Your task to perform on an android device: empty trash in google photos Image 0: 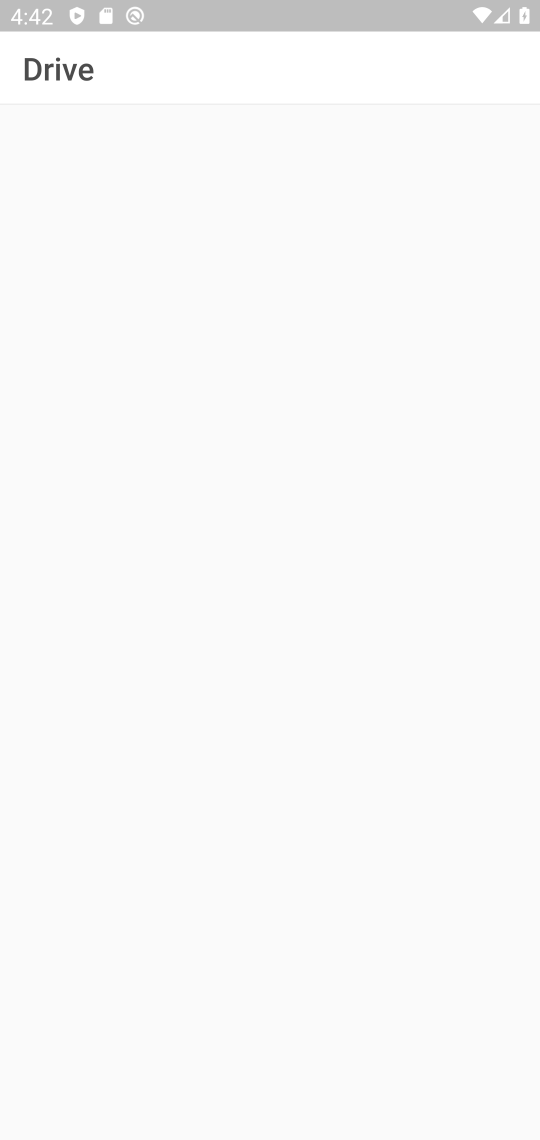
Step 0: press home button
Your task to perform on an android device: empty trash in google photos Image 1: 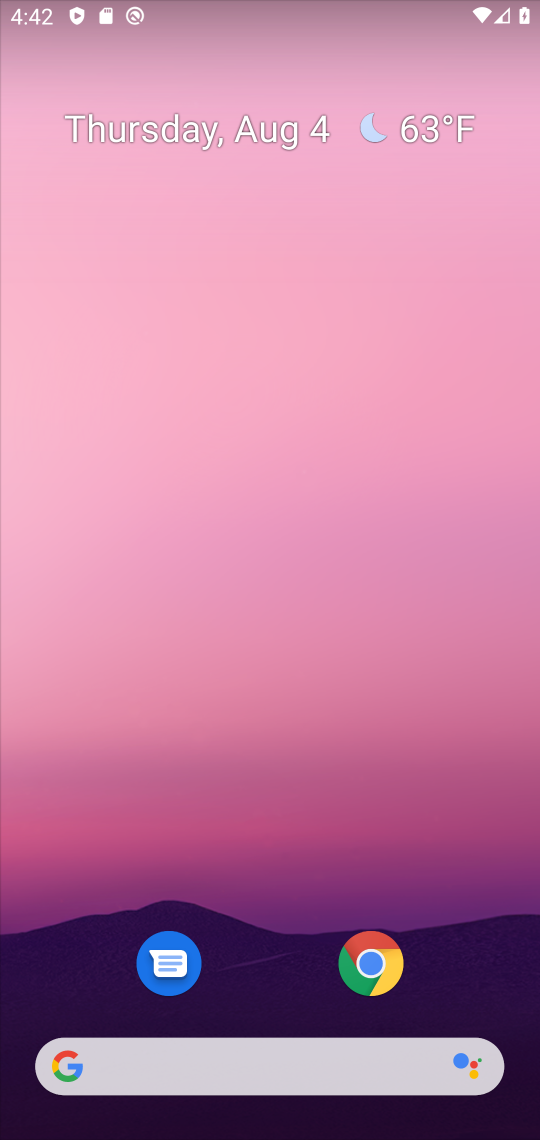
Step 1: drag from (262, 854) to (252, 25)
Your task to perform on an android device: empty trash in google photos Image 2: 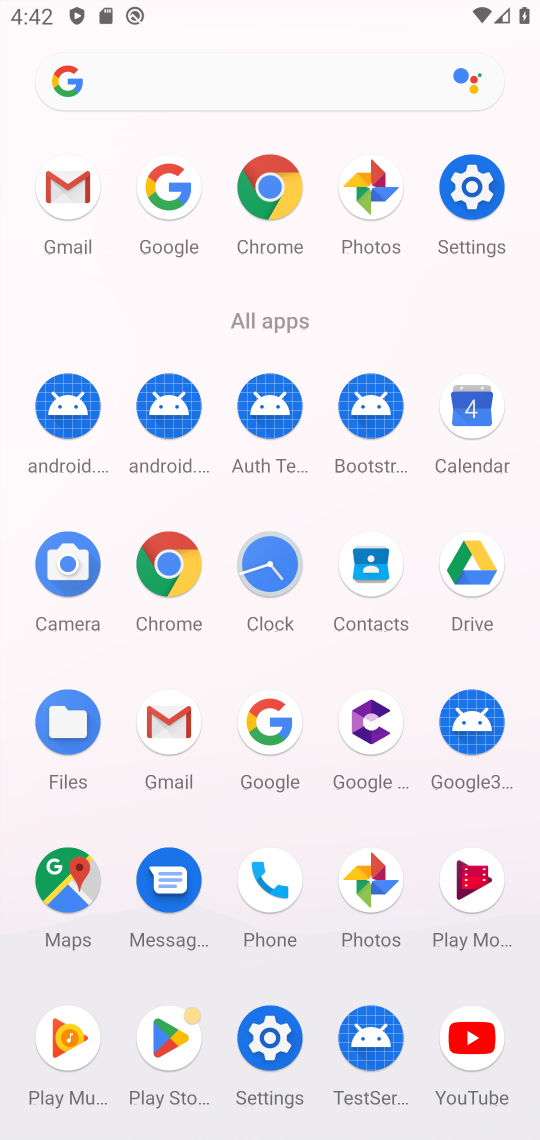
Step 2: click (365, 183)
Your task to perform on an android device: empty trash in google photos Image 3: 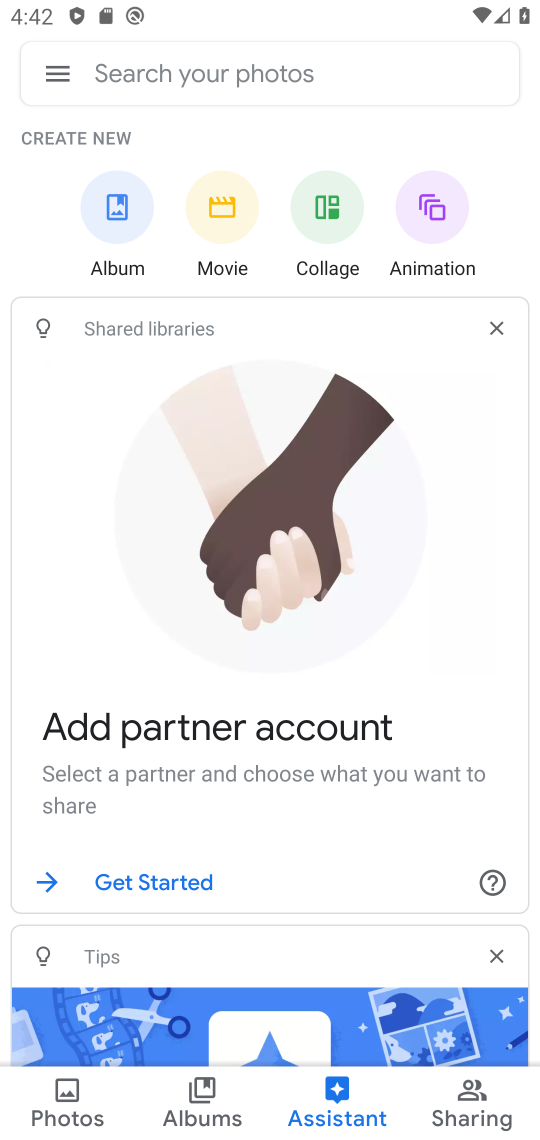
Step 3: click (49, 66)
Your task to perform on an android device: empty trash in google photos Image 4: 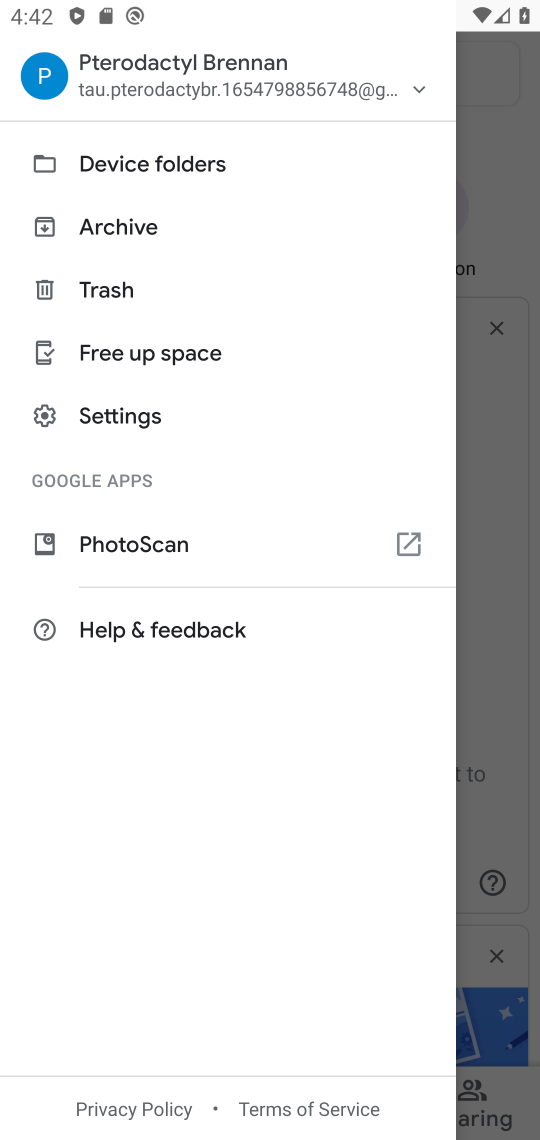
Step 4: click (100, 279)
Your task to perform on an android device: empty trash in google photos Image 5: 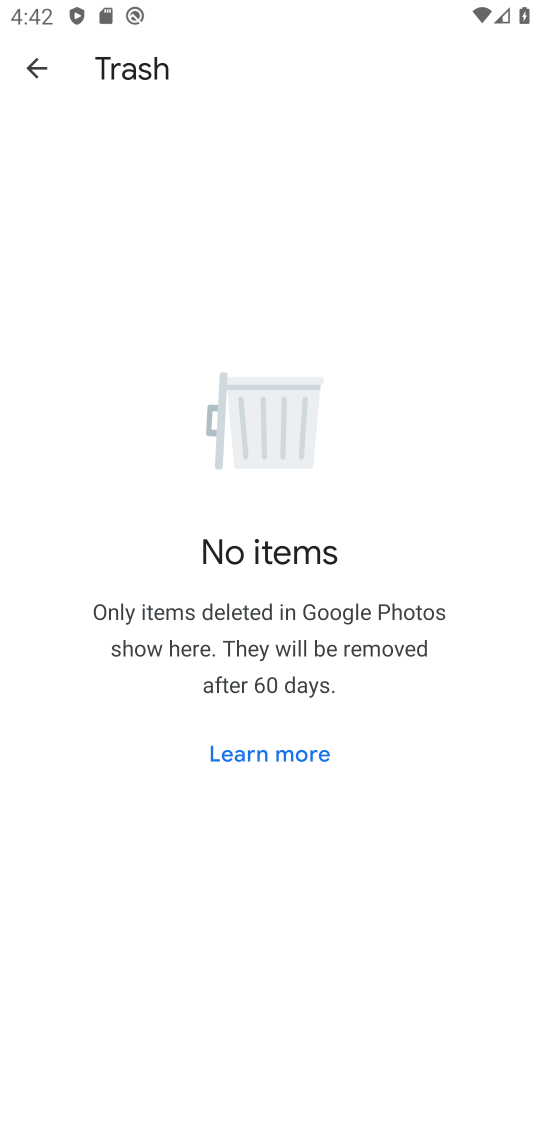
Step 5: task complete